Your task to perform on an android device: Clear the cart on amazon.com. Image 0: 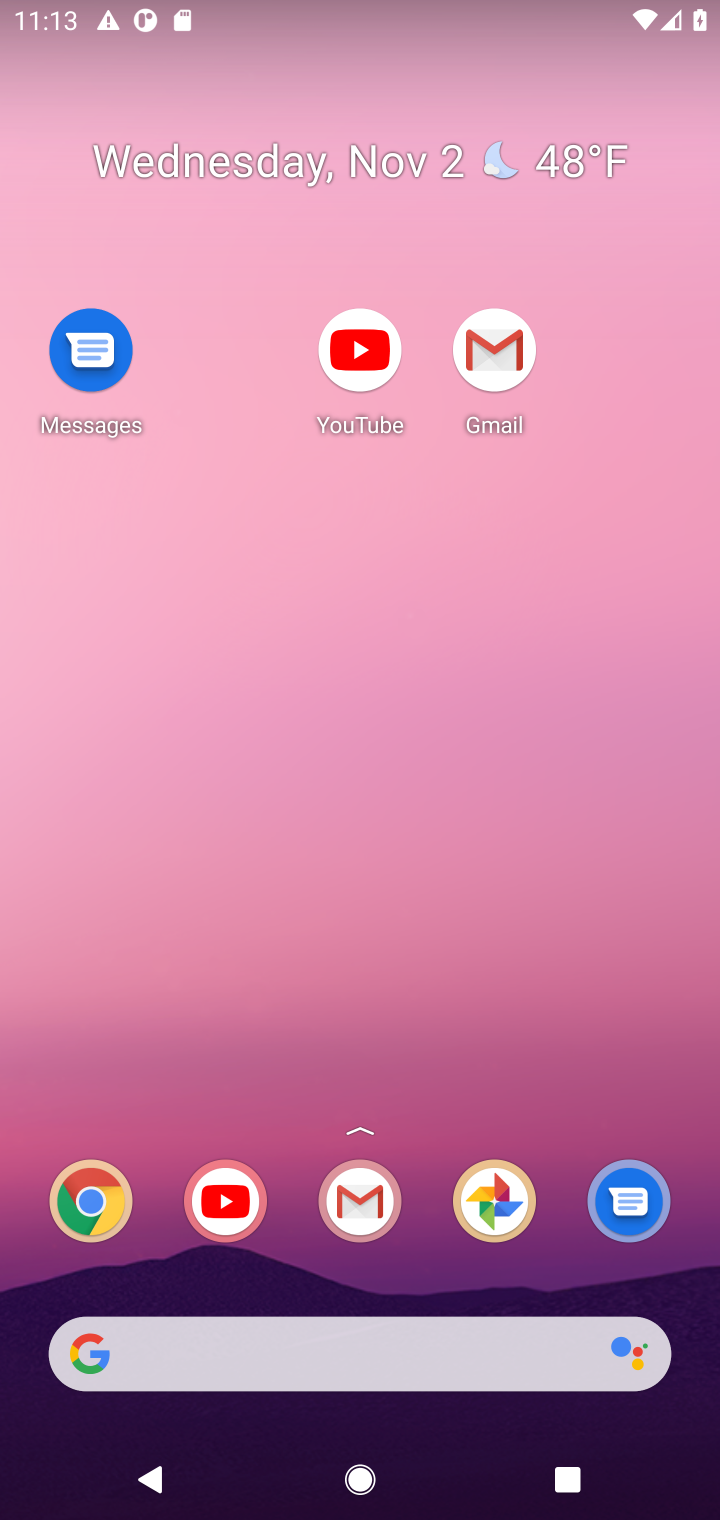
Step 0: drag from (448, 1285) to (467, 295)
Your task to perform on an android device: Clear the cart on amazon.com. Image 1: 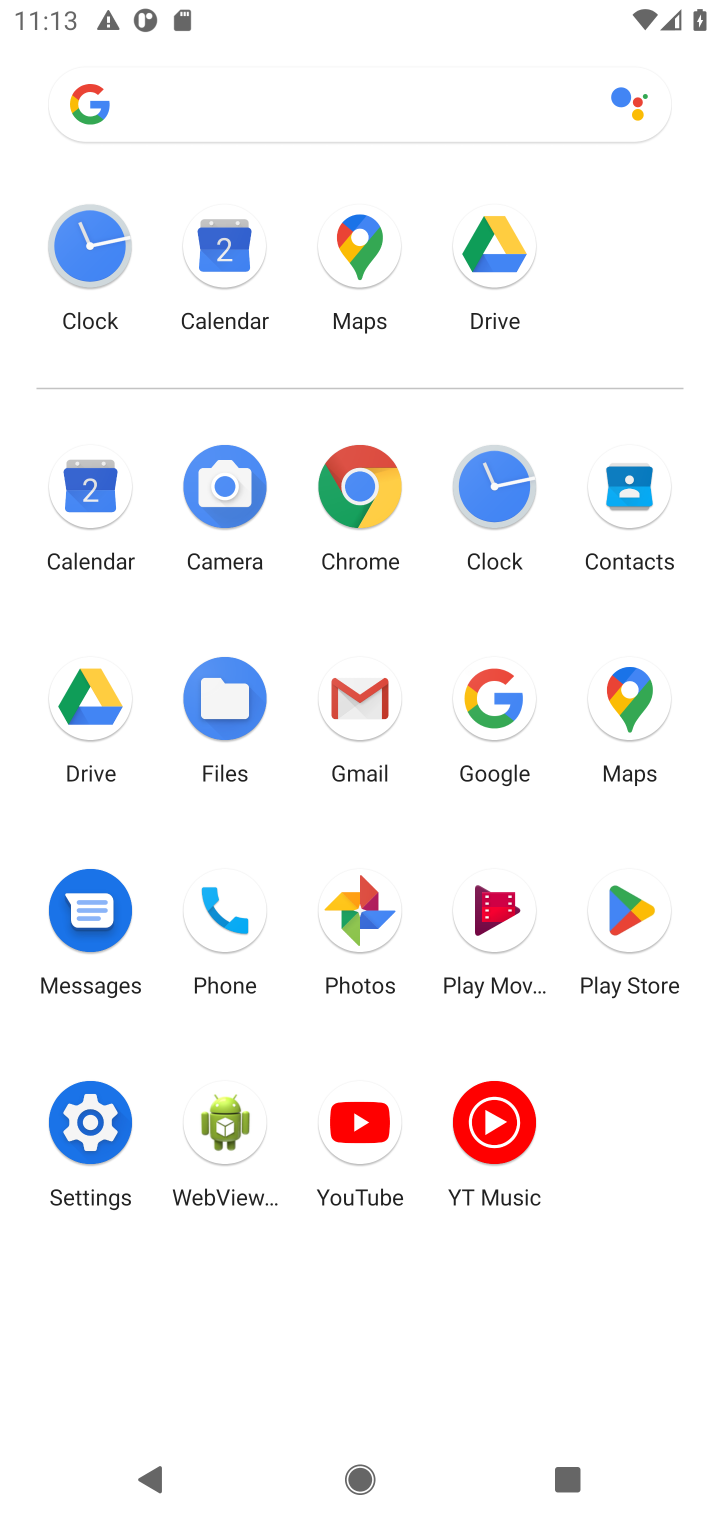
Step 1: click (361, 475)
Your task to perform on an android device: Clear the cart on amazon.com. Image 2: 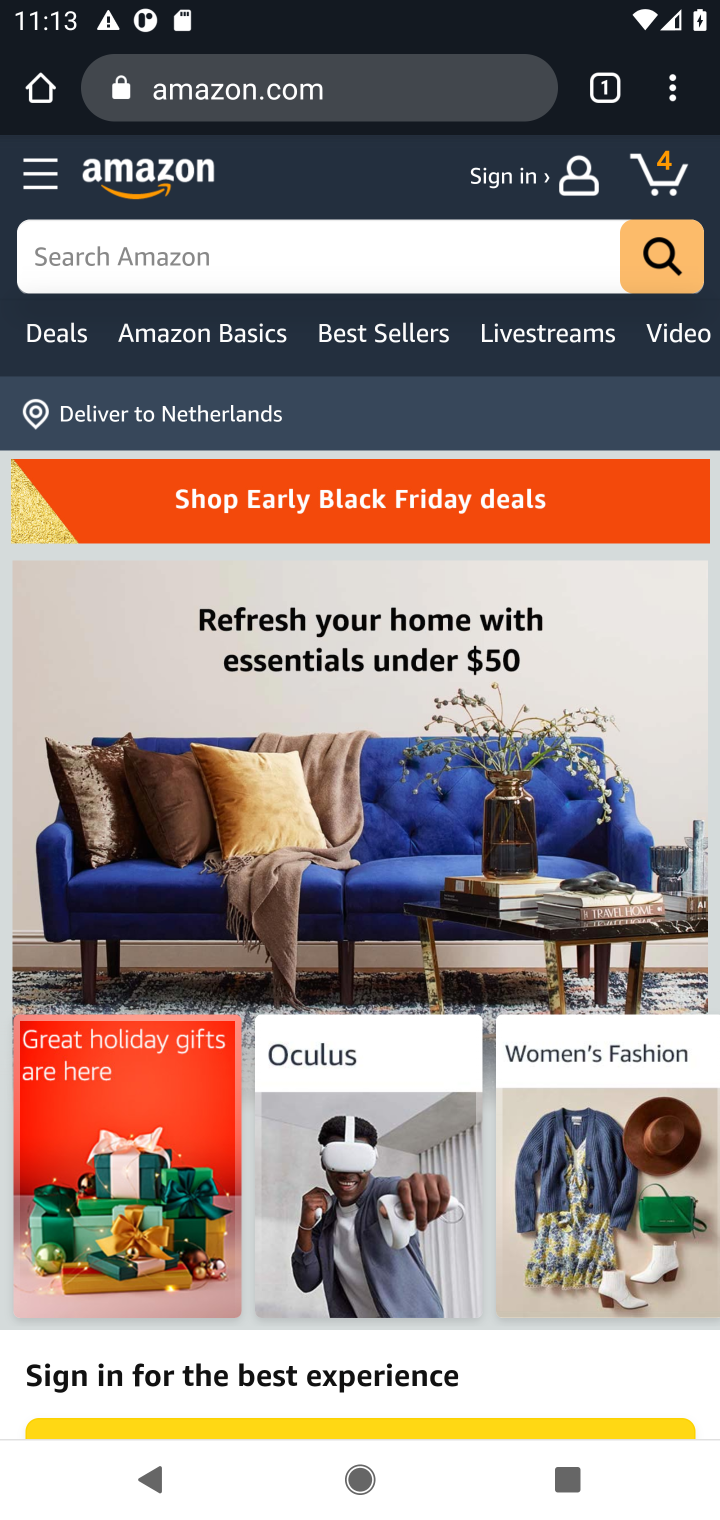
Step 2: click (432, 100)
Your task to perform on an android device: Clear the cart on amazon.com. Image 3: 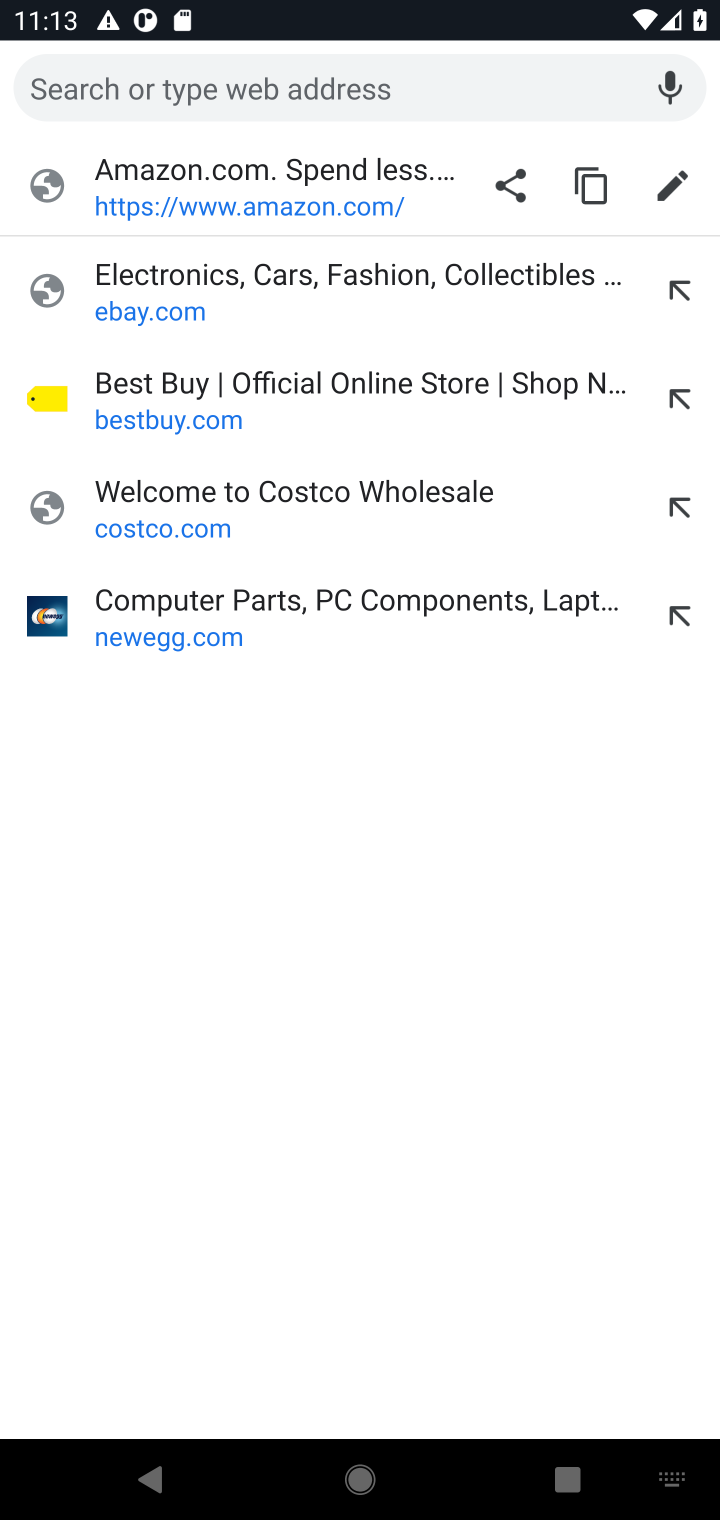
Step 3: type "amazon.com"
Your task to perform on an android device: Clear the cart on amazon.com. Image 4: 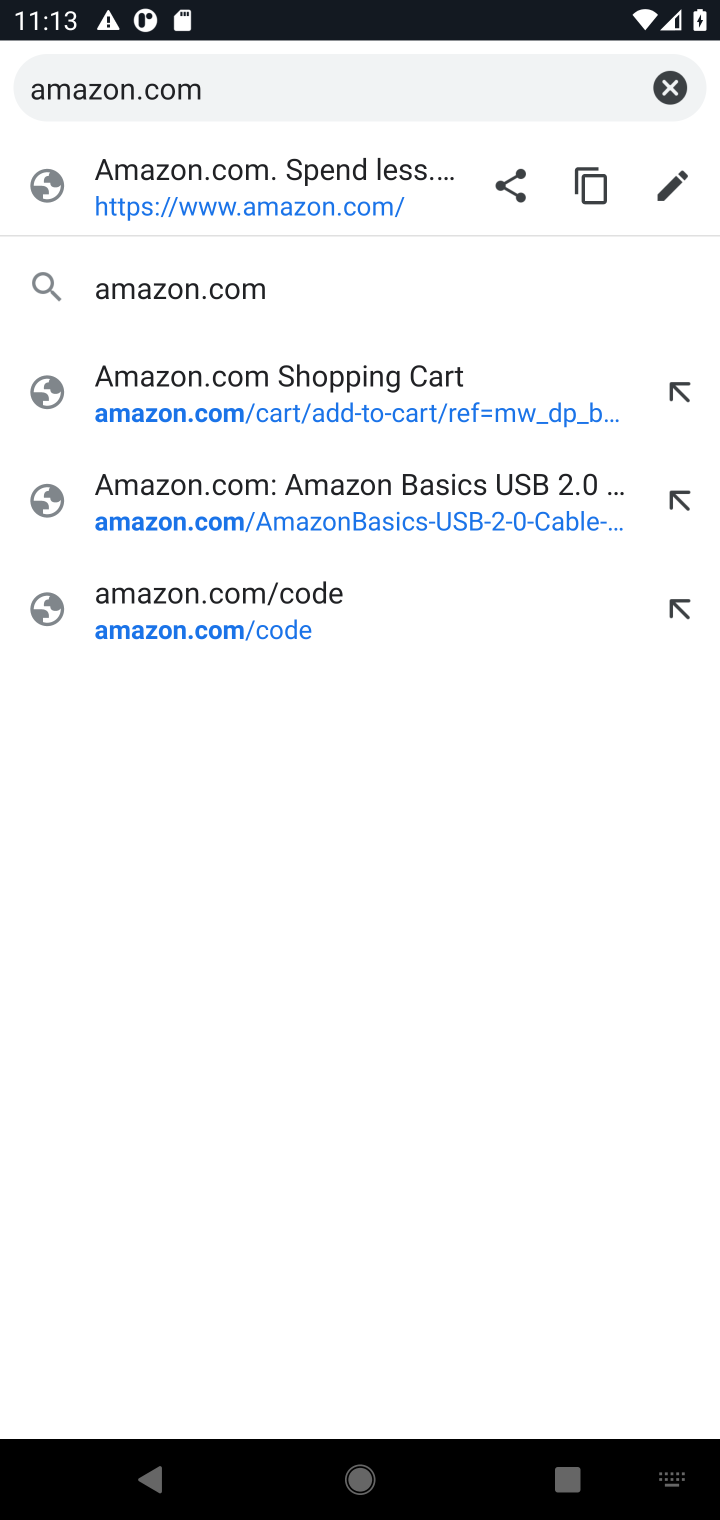
Step 4: press enter
Your task to perform on an android device: Clear the cart on amazon.com. Image 5: 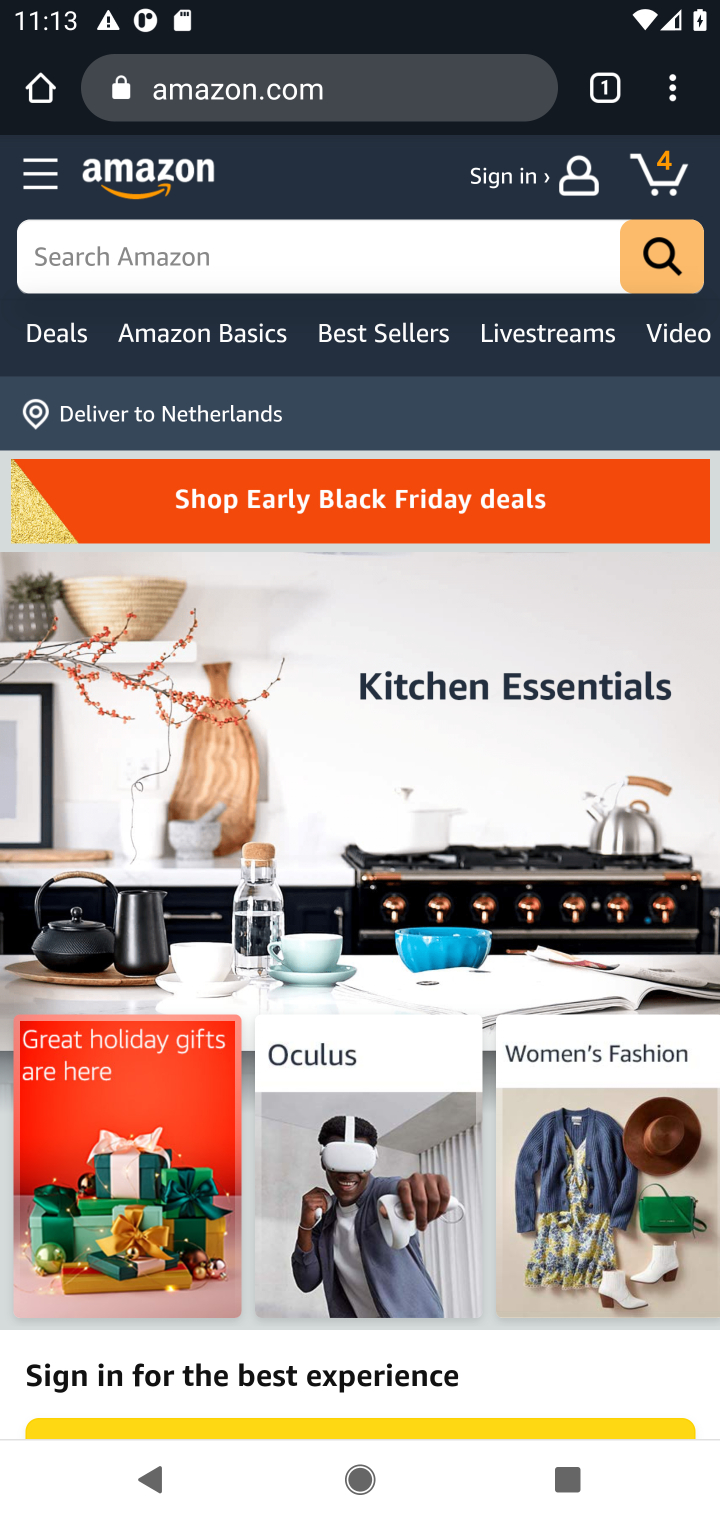
Step 5: click (668, 187)
Your task to perform on an android device: Clear the cart on amazon.com. Image 6: 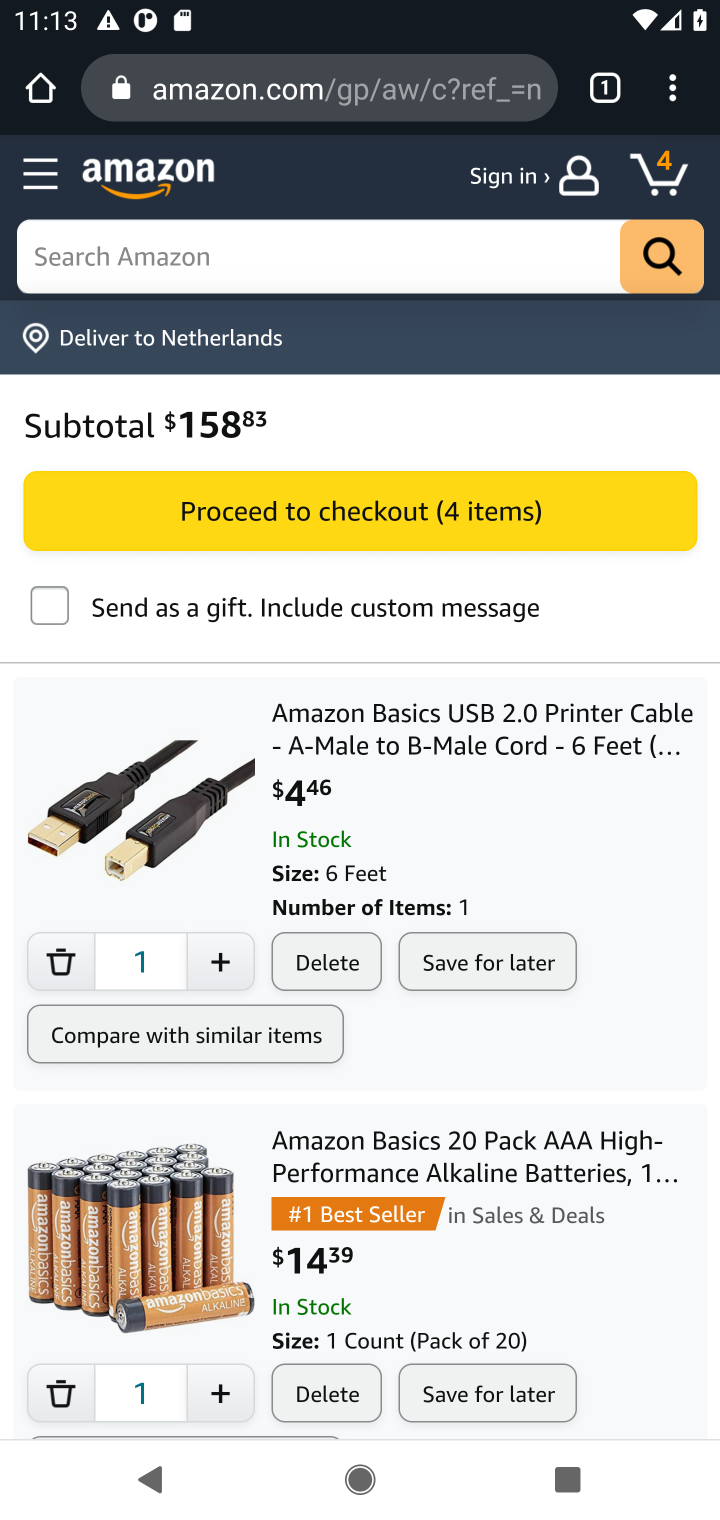
Step 6: click (57, 965)
Your task to perform on an android device: Clear the cart on amazon.com. Image 7: 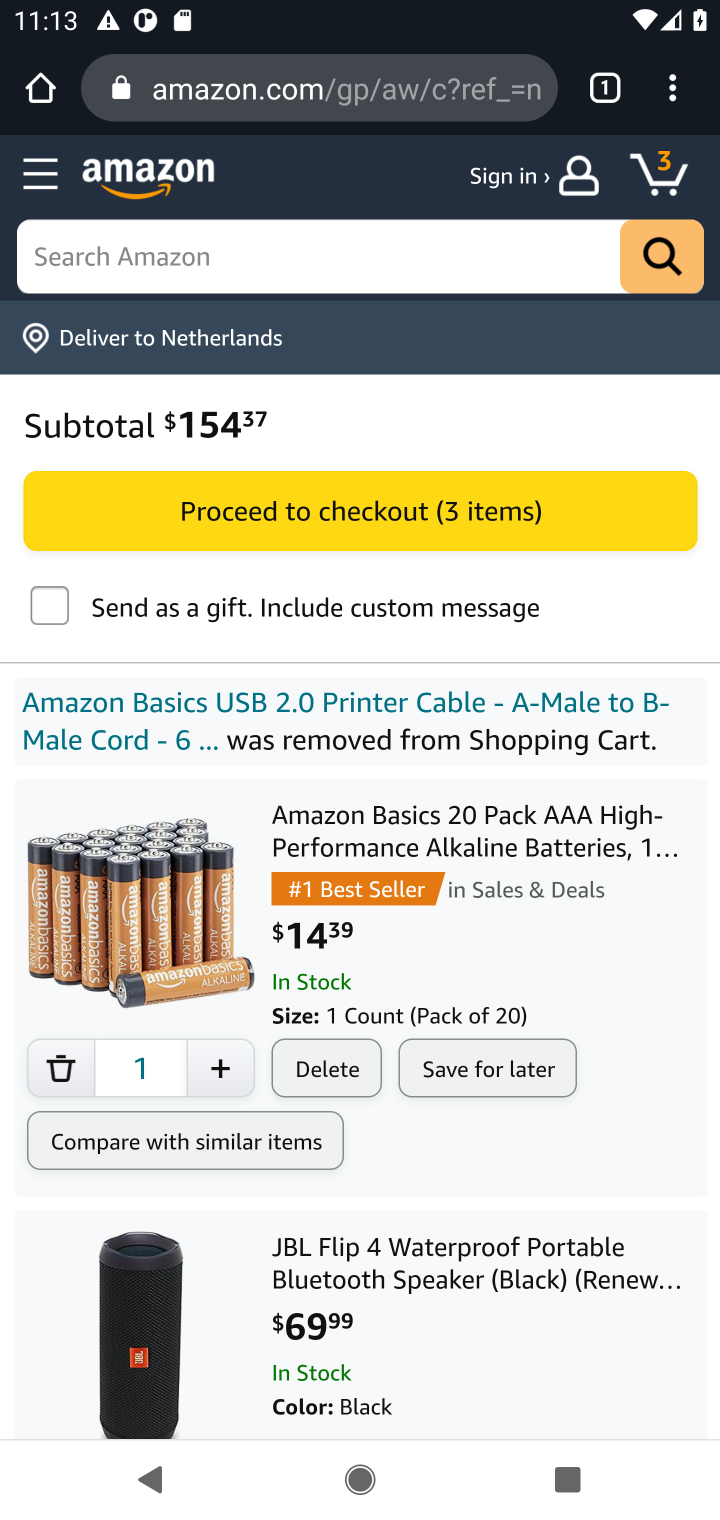
Step 7: click (56, 1071)
Your task to perform on an android device: Clear the cart on amazon.com. Image 8: 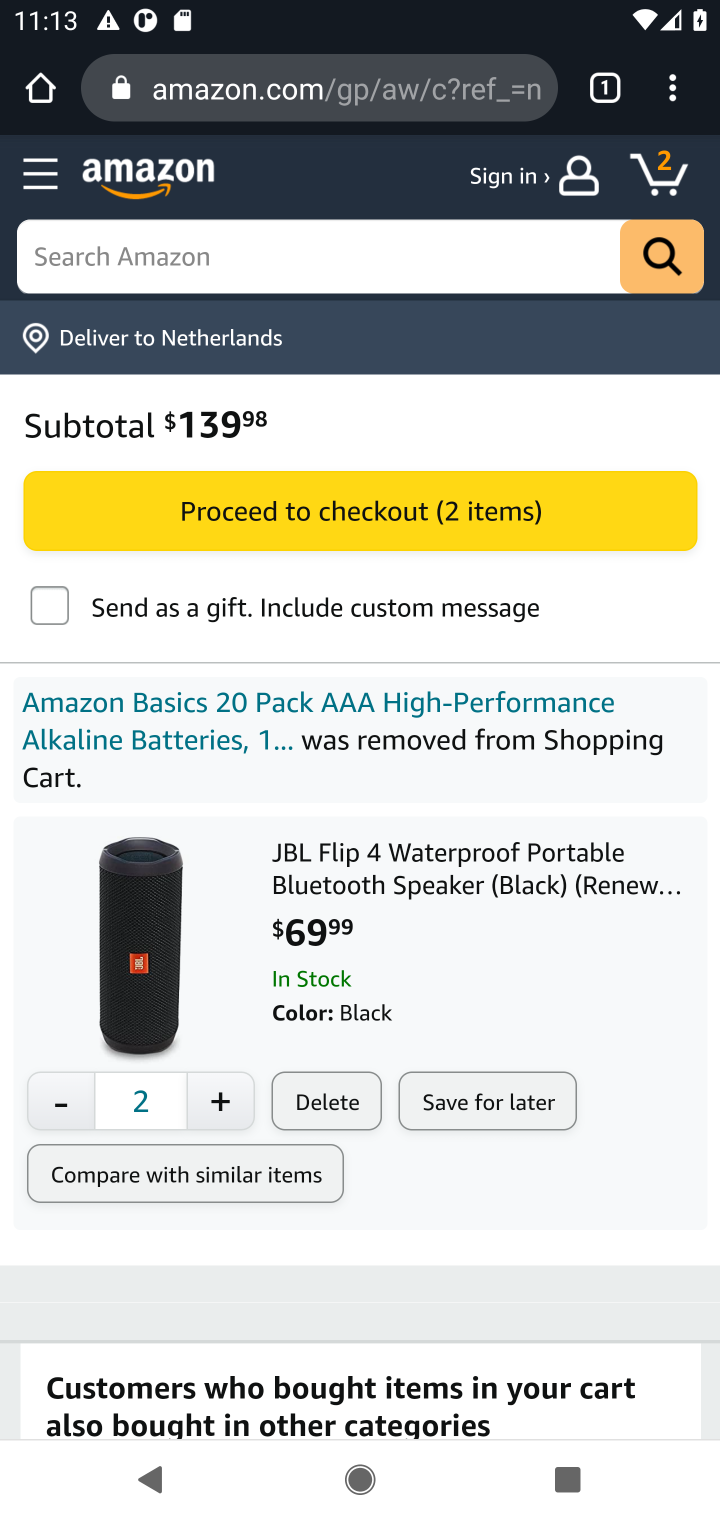
Step 8: click (67, 1105)
Your task to perform on an android device: Clear the cart on amazon.com. Image 9: 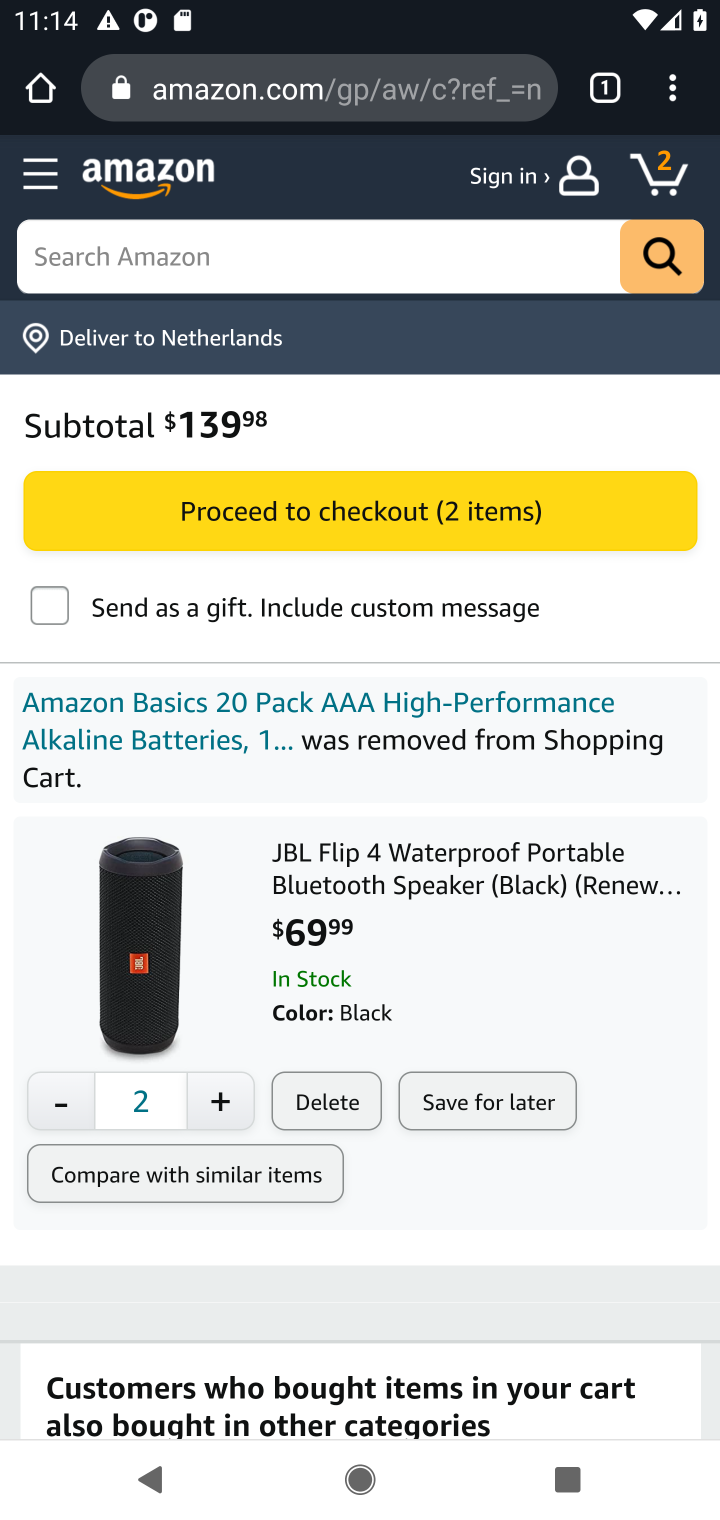
Step 9: click (326, 1104)
Your task to perform on an android device: Clear the cart on amazon.com. Image 10: 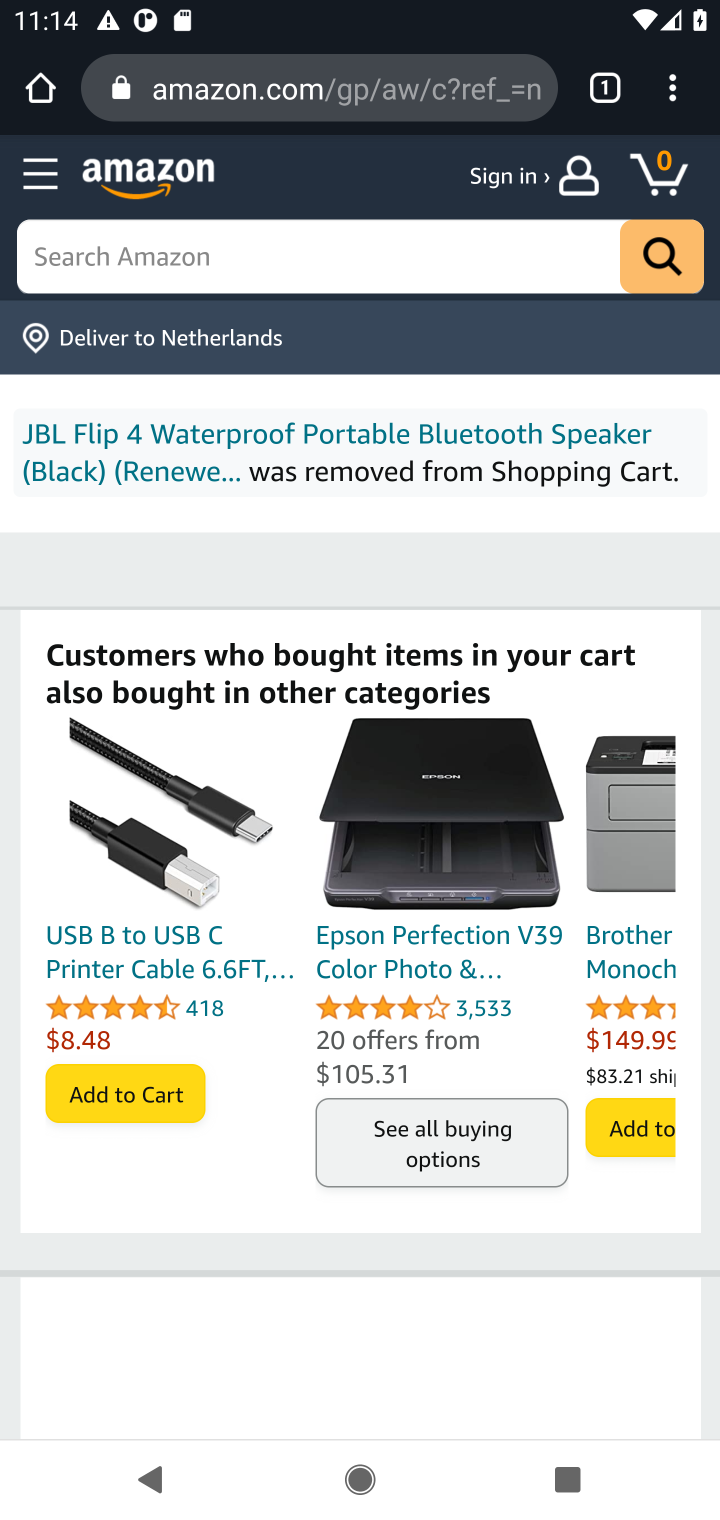
Step 10: task complete